Your task to perform on an android device: change the clock display to analog Image 0: 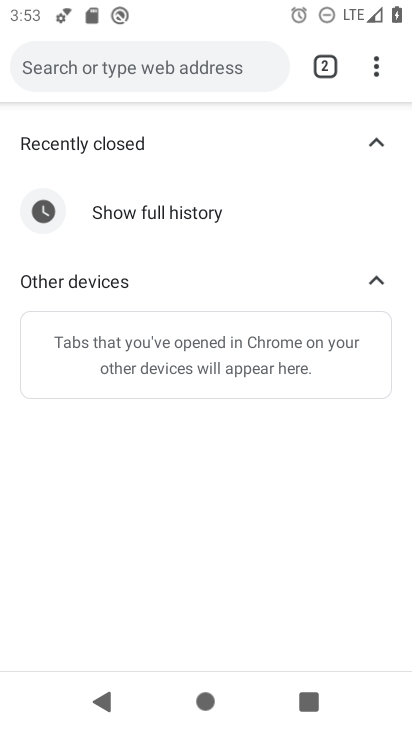
Step 0: press home button
Your task to perform on an android device: change the clock display to analog Image 1: 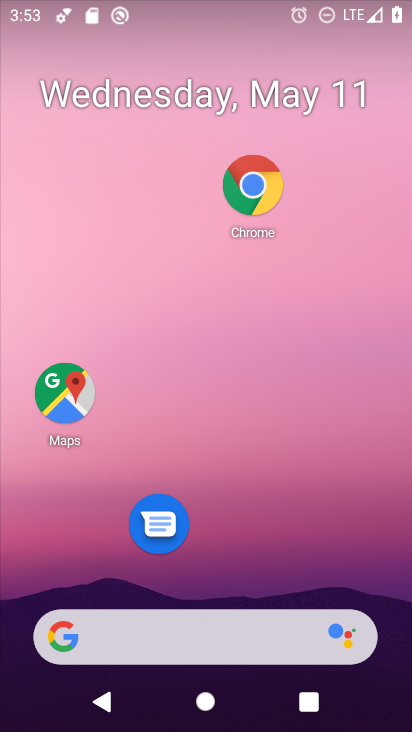
Step 1: drag from (289, 543) to (273, 68)
Your task to perform on an android device: change the clock display to analog Image 2: 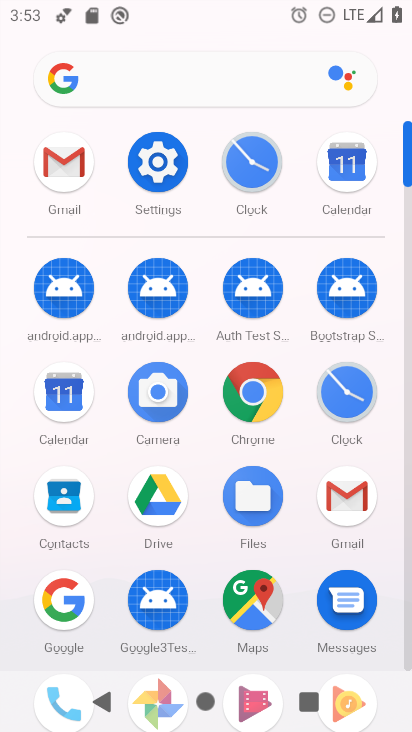
Step 2: click (260, 172)
Your task to perform on an android device: change the clock display to analog Image 3: 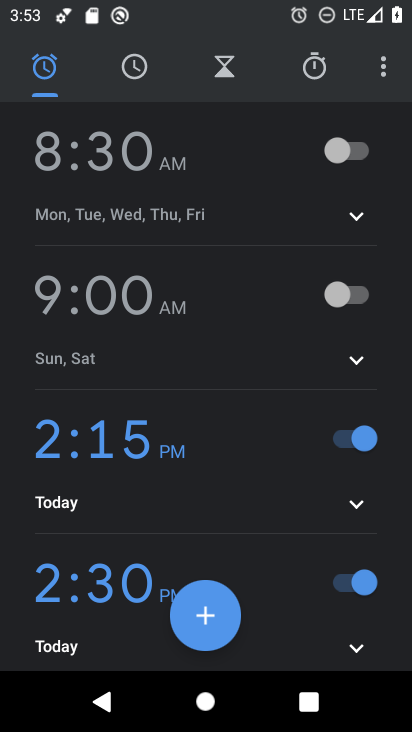
Step 3: click (382, 75)
Your task to perform on an android device: change the clock display to analog Image 4: 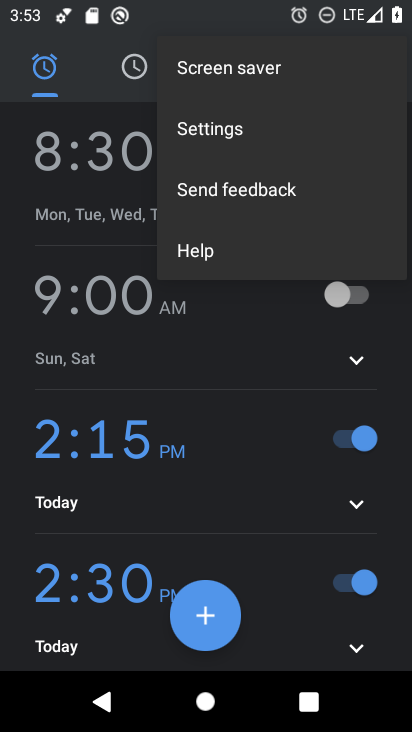
Step 4: click (282, 138)
Your task to perform on an android device: change the clock display to analog Image 5: 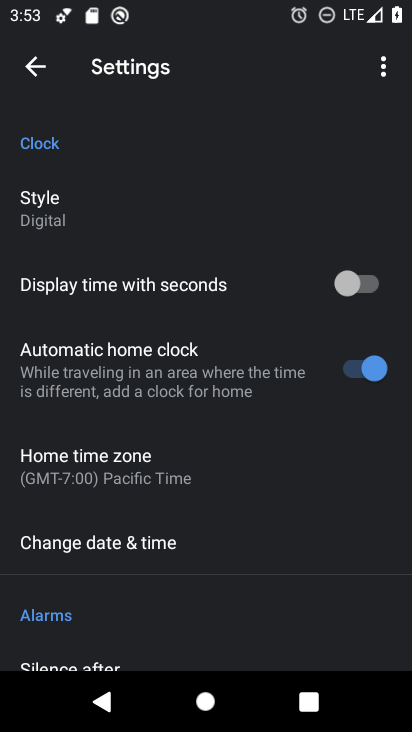
Step 5: click (81, 201)
Your task to perform on an android device: change the clock display to analog Image 6: 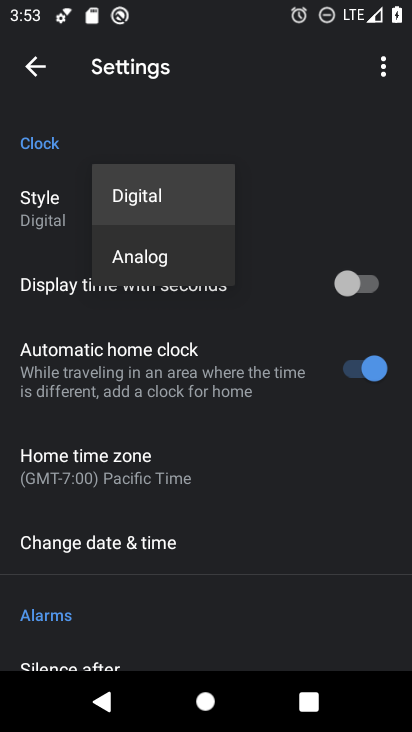
Step 6: click (124, 244)
Your task to perform on an android device: change the clock display to analog Image 7: 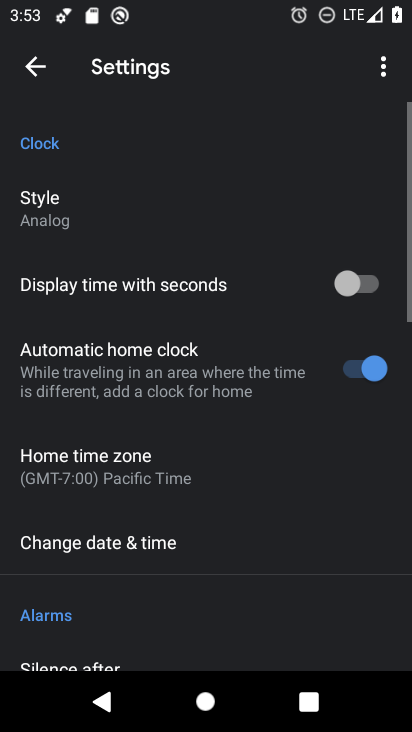
Step 7: click (45, 64)
Your task to perform on an android device: change the clock display to analog Image 8: 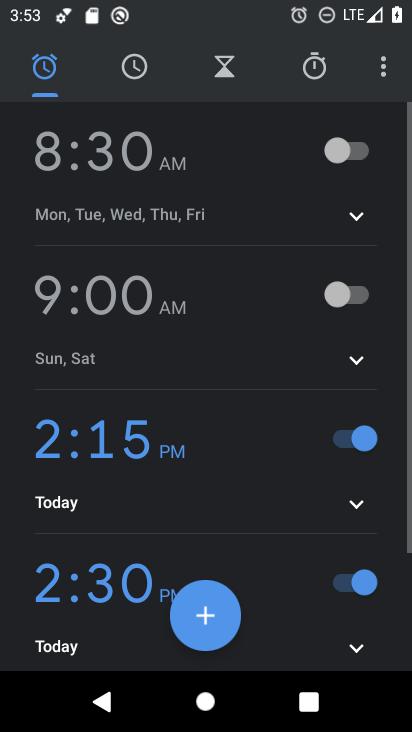
Step 8: click (127, 74)
Your task to perform on an android device: change the clock display to analog Image 9: 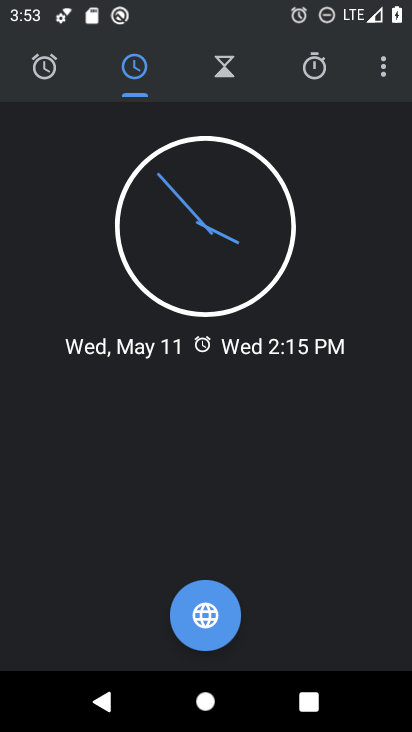
Step 9: task complete